Your task to perform on an android device: clear history in the chrome app Image 0: 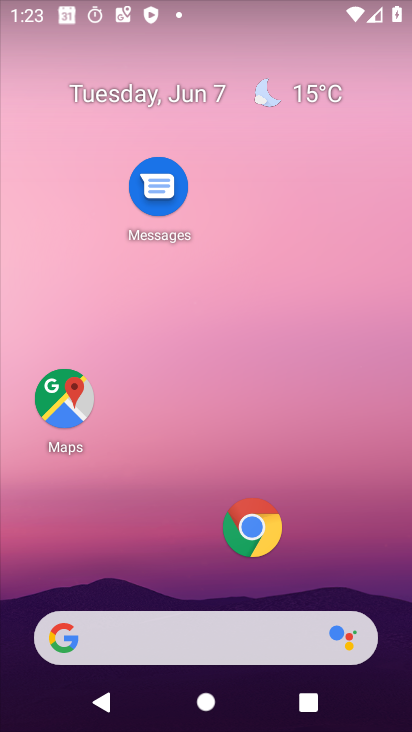
Step 0: click (268, 533)
Your task to perform on an android device: clear history in the chrome app Image 1: 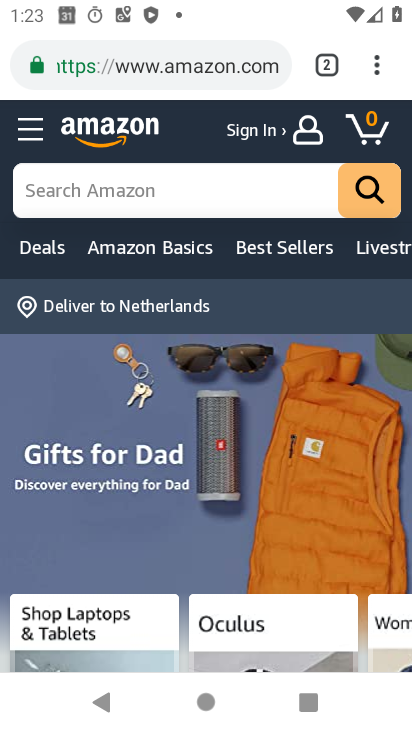
Step 1: click (380, 58)
Your task to perform on an android device: clear history in the chrome app Image 2: 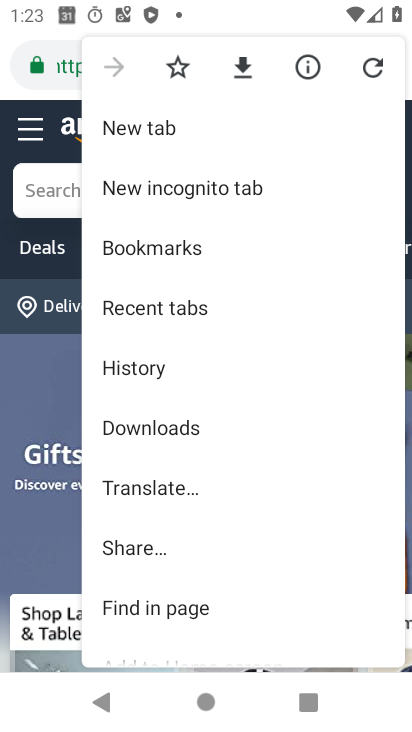
Step 2: click (135, 366)
Your task to perform on an android device: clear history in the chrome app Image 3: 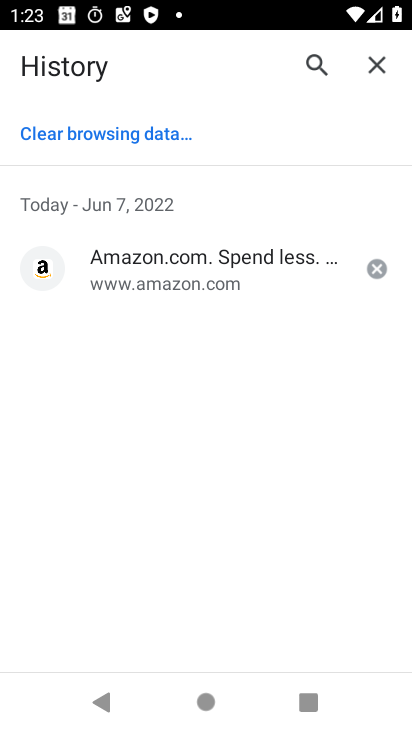
Step 3: click (159, 134)
Your task to perform on an android device: clear history in the chrome app Image 4: 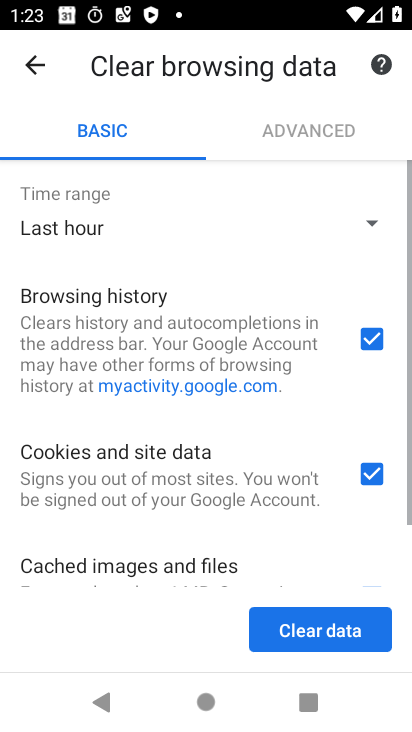
Step 4: click (341, 635)
Your task to perform on an android device: clear history in the chrome app Image 5: 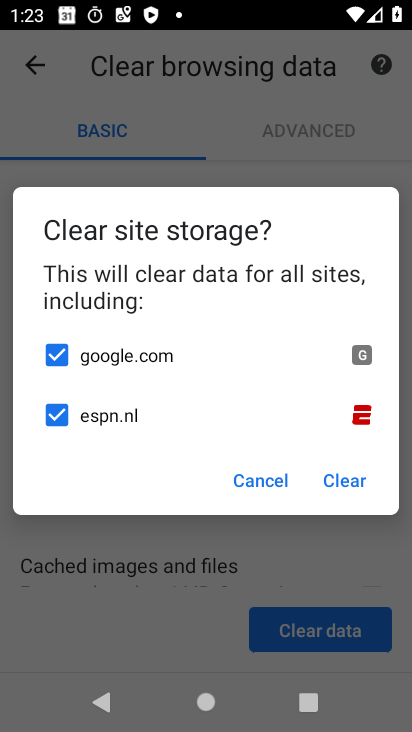
Step 5: click (336, 473)
Your task to perform on an android device: clear history in the chrome app Image 6: 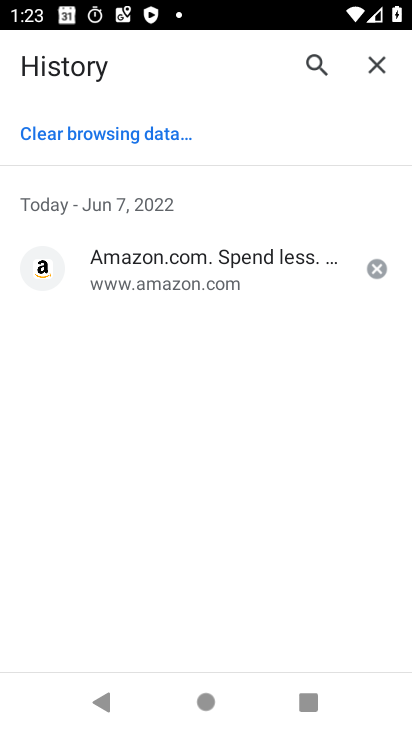
Step 6: task complete